Your task to perform on an android device: open chrome and create a bookmark for the current page Image 0: 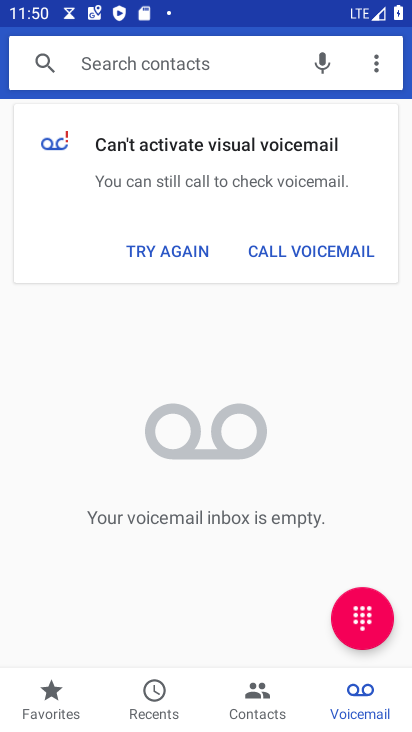
Step 0: press home button
Your task to perform on an android device: open chrome and create a bookmark for the current page Image 1: 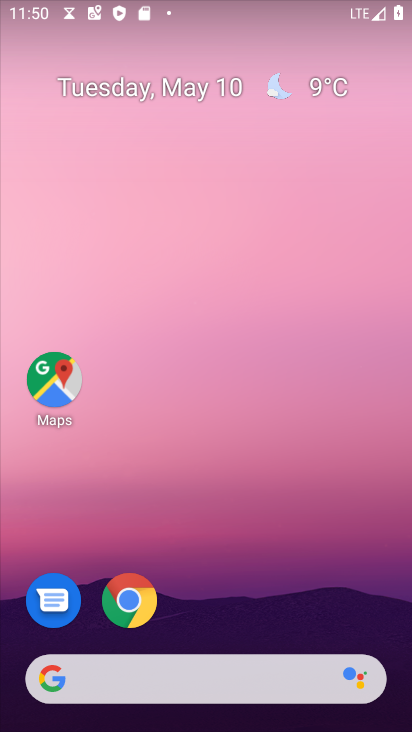
Step 1: click (143, 602)
Your task to perform on an android device: open chrome and create a bookmark for the current page Image 2: 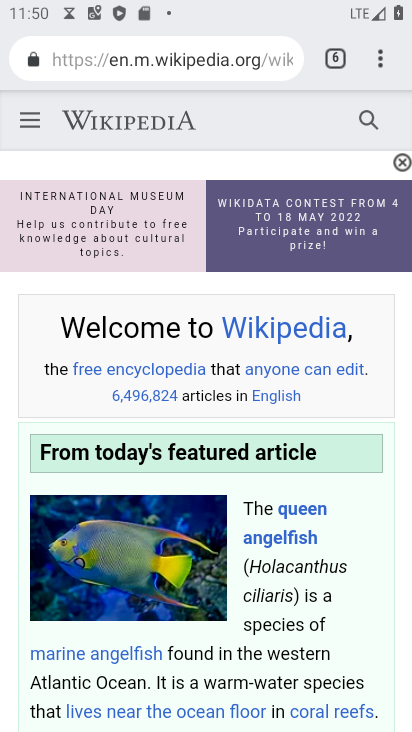
Step 2: click (374, 57)
Your task to perform on an android device: open chrome and create a bookmark for the current page Image 3: 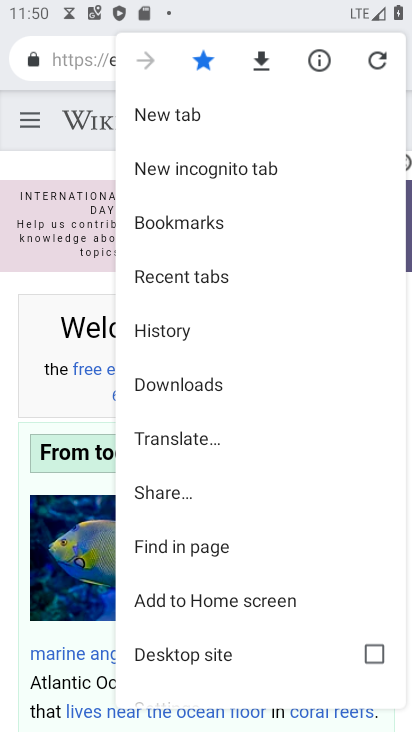
Step 3: task complete